Your task to perform on an android device: Turn on the flashlight Image 0: 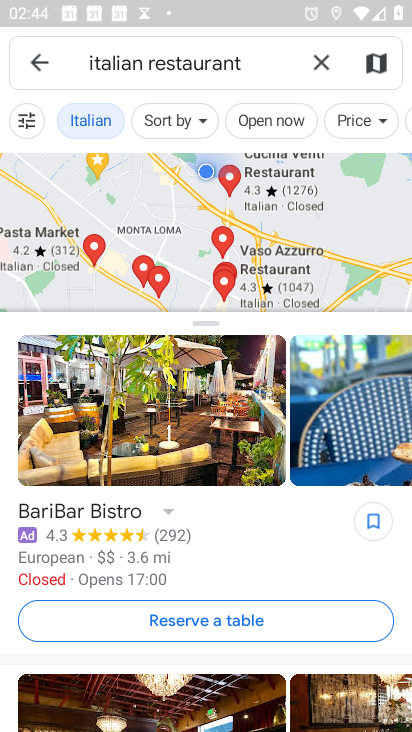
Step 0: press home button
Your task to perform on an android device: Turn on the flashlight Image 1: 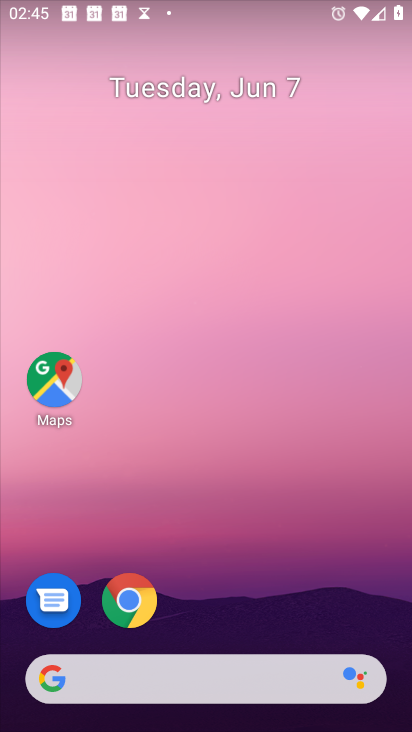
Step 1: drag from (226, 713) to (256, 119)
Your task to perform on an android device: Turn on the flashlight Image 2: 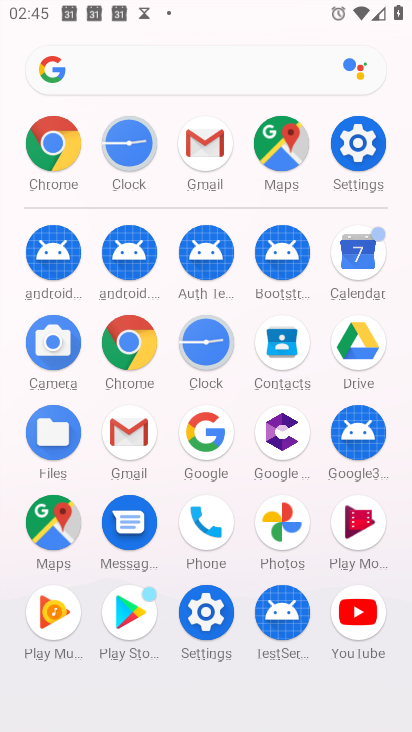
Step 2: click (359, 153)
Your task to perform on an android device: Turn on the flashlight Image 3: 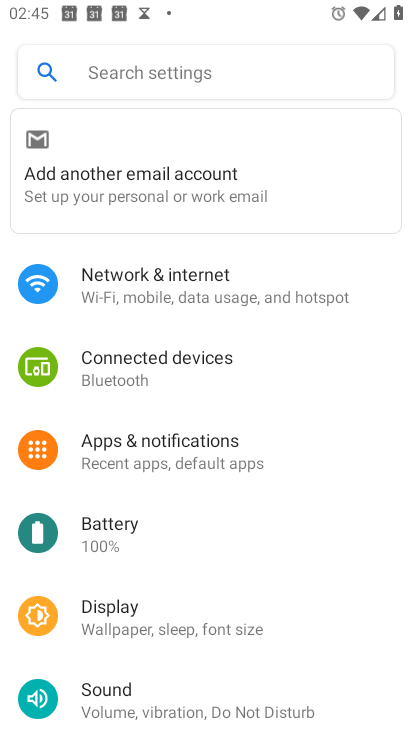
Step 3: task complete